Your task to perform on an android device: star an email in the gmail app Image 0: 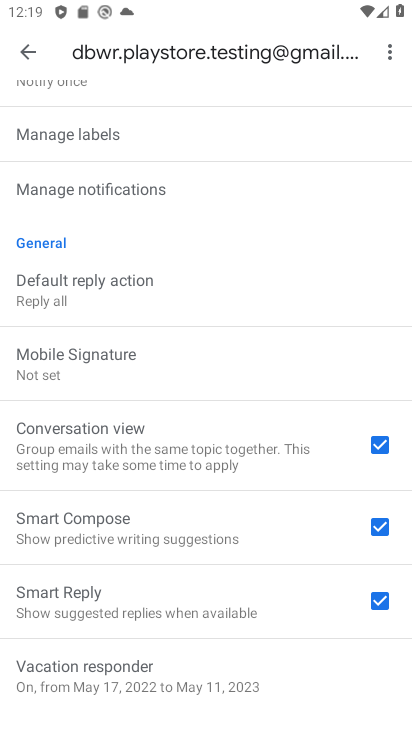
Step 0: click (26, 54)
Your task to perform on an android device: star an email in the gmail app Image 1: 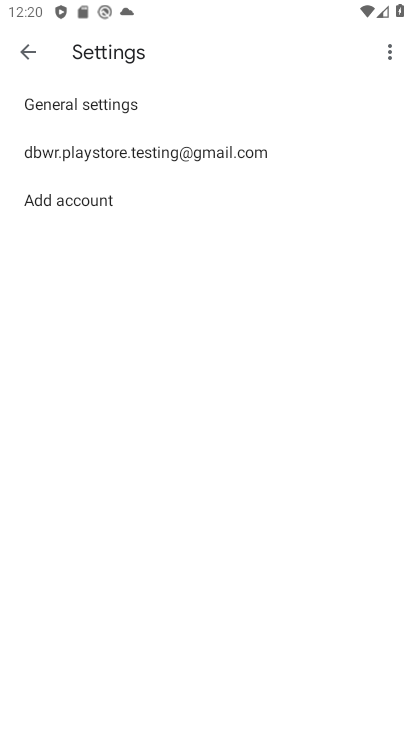
Step 1: click (29, 52)
Your task to perform on an android device: star an email in the gmail app Image 2: 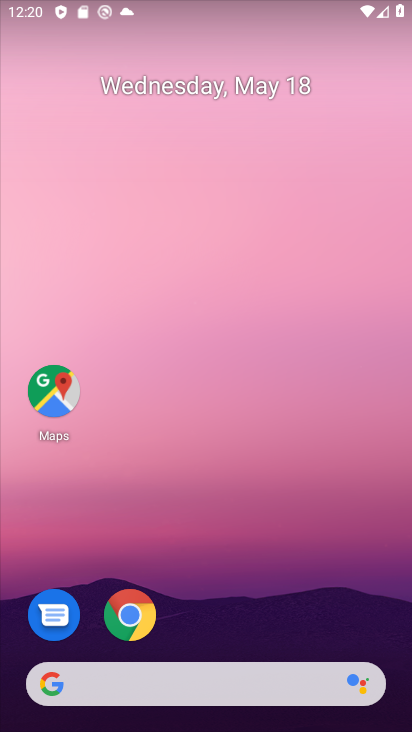
Step 2: drag from (239, 629) to (253, 52)
Your task to perform on an android device: star an email in the gmail app Image 3: 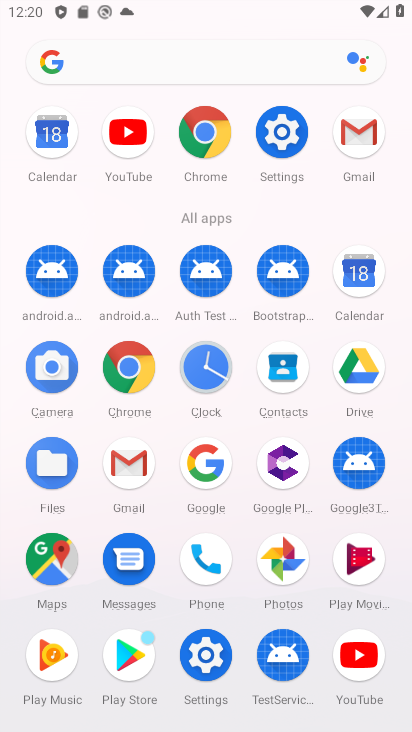
Step 3: click (351, 125)
Your task to perform on an android device: star an email in the gmail app Image 4: 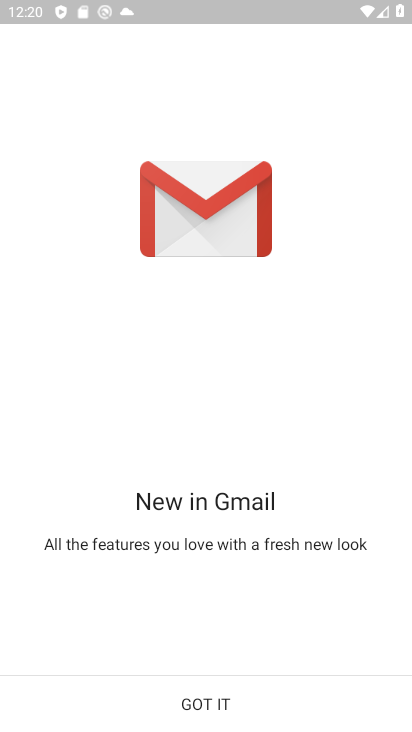
Step 4: click (216, 702)
Your task to perform on an android device: star an email in the gmail app Image 5: 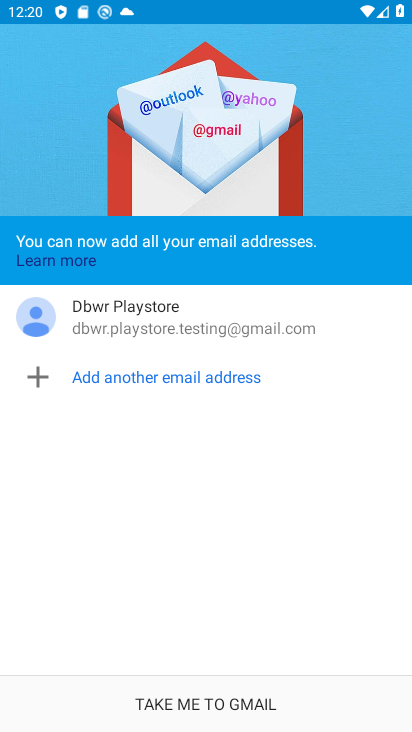
Step 5: click (219, 699)
Your task to perform on an android device: star an email in the gmail app Image 6: 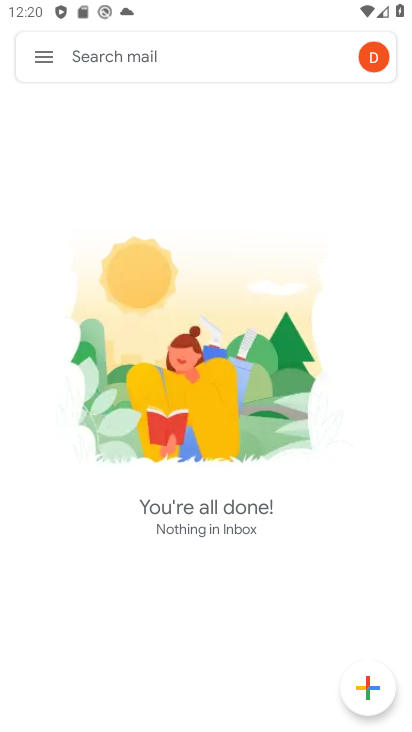
Step 6: task complete